Your task to perform on an android device: change text size in settings app Image 0: 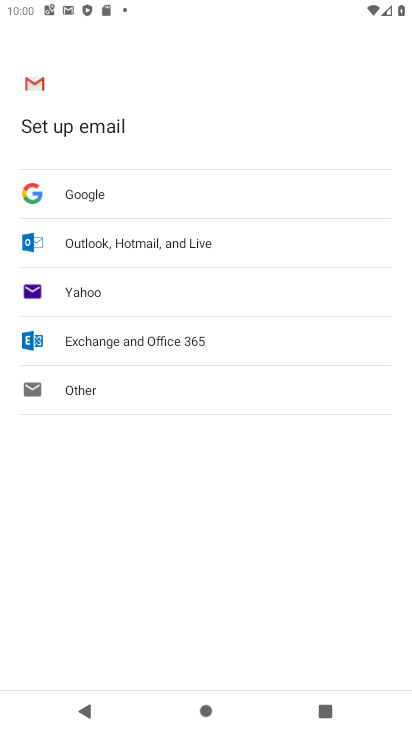
Step 0: press back button
Your task to perform on an android device: change text size in settings app Image 1: 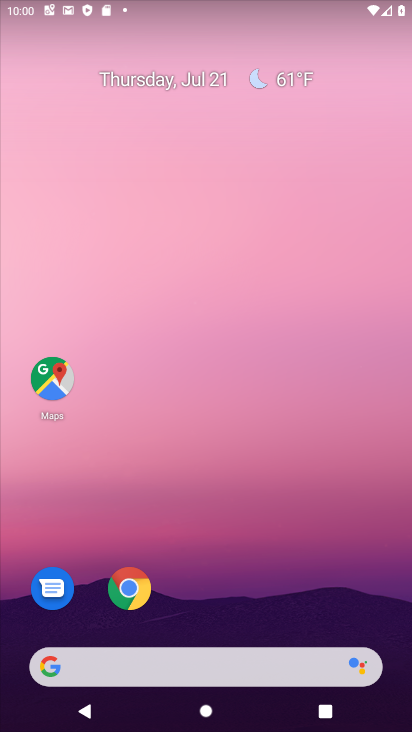
Step 1: drag from (280, 576) to (308, 31)
Your task to perform on an android device: change text size in settings app Image 2: 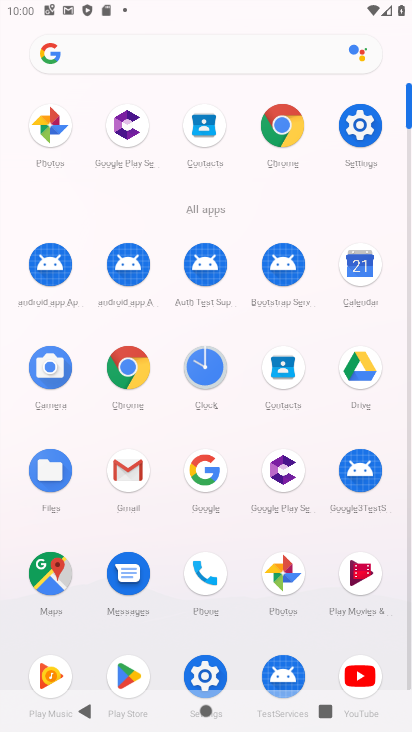
Step 2: click (356, 120)
Your task to perform on an android device: change text size in settings app Image 3: 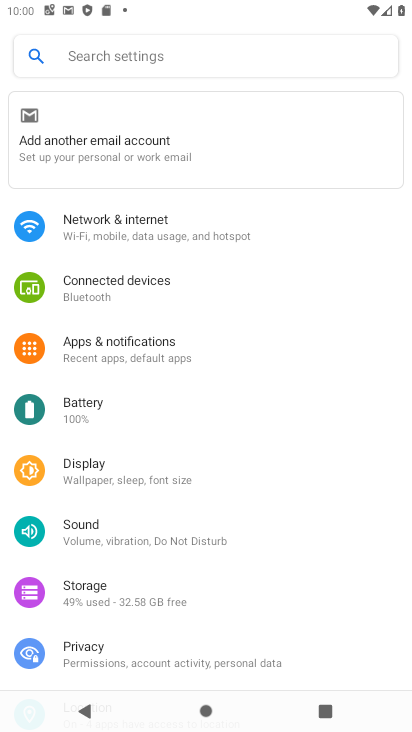
Step 3: click (140, 59)
Your task to perform on an android device: change text size in settings app Image 4: 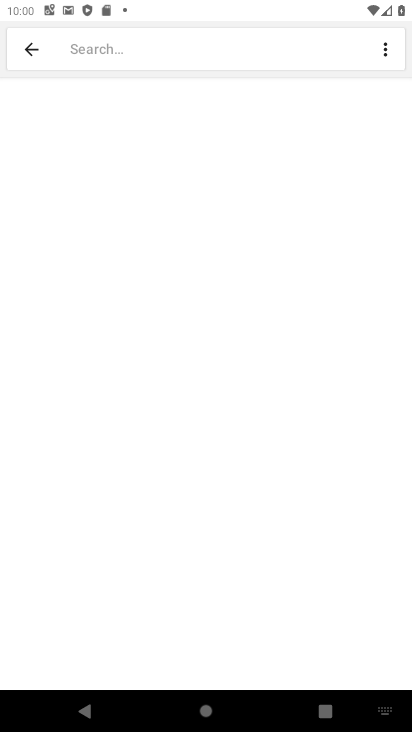
Step 4: type "text size"
Your task to perform on an android device: change text size in settings app Image 5: 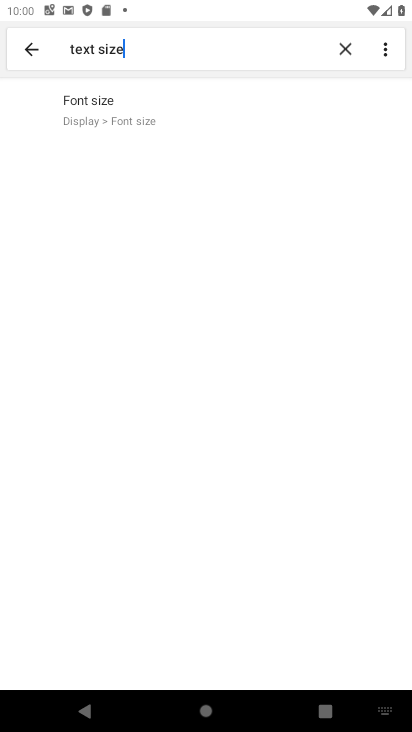
Step 5: click (103, 99)
Your task to perform on an android device: change text size in settings app Image 6: 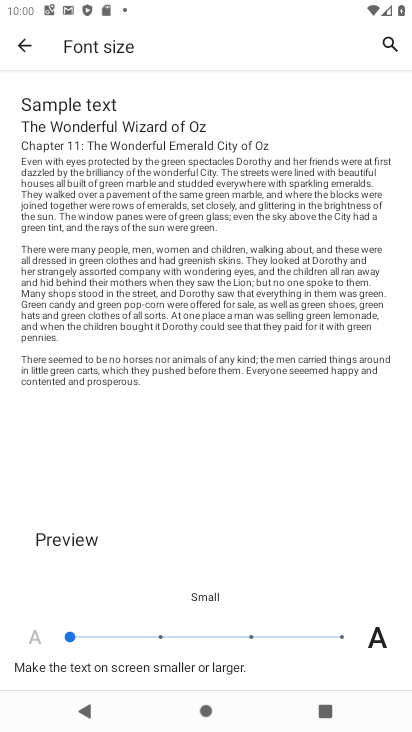
Step 6: click (247, 639)
Your task to perform on an android device: change text size in settings app Image 7: 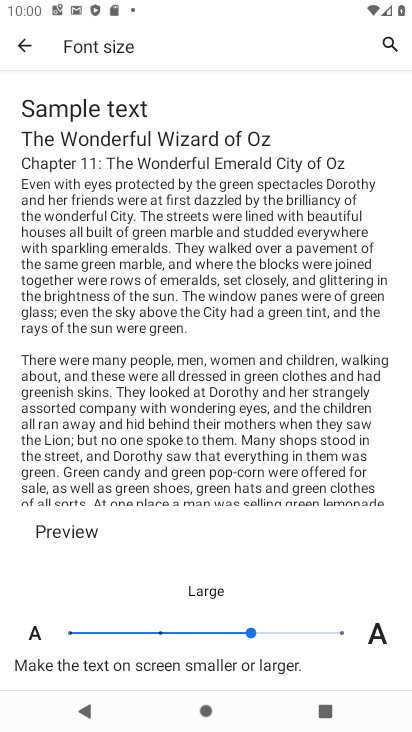
Step 7: task complete